Your task to perform on an android device: Is it going to rain this weekend? Image 0: 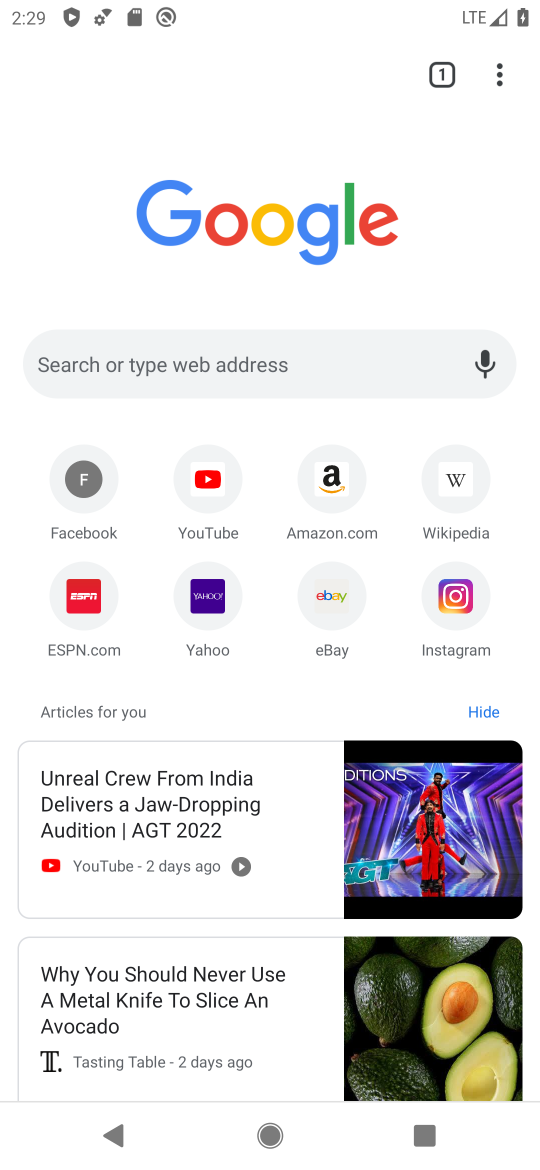
Step 0: press home button
Your task to perform on an android device: Is it going to rain this weekend? Image 1: 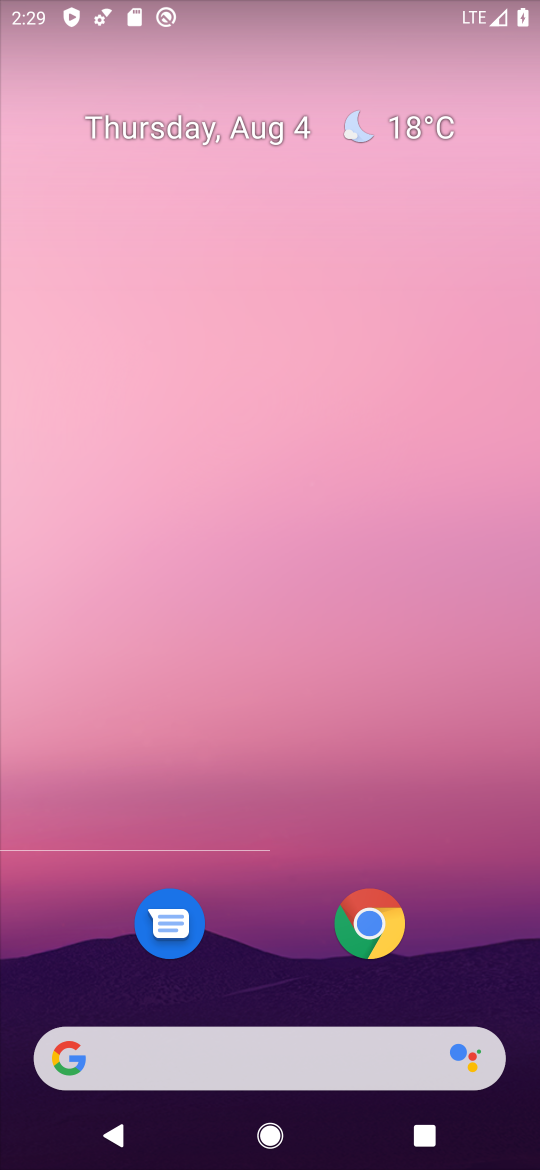
Step 1: drag from (353, 828) to (312, 50)
Your task to perform on an android device: Is it going to rain this weekend? Image 2: 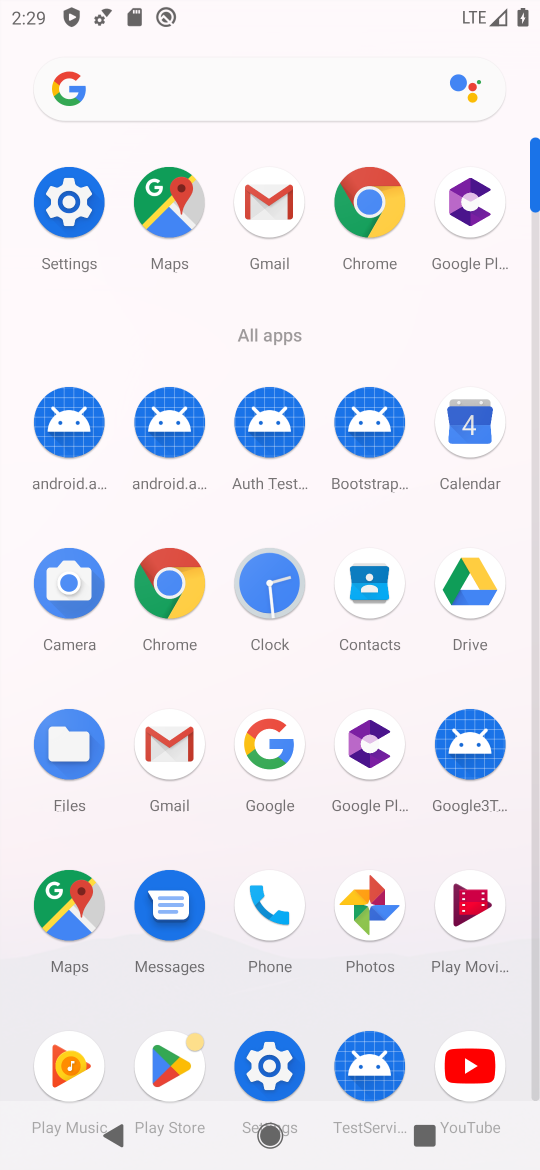
Step 2: click (291, 744)
Your task to perform on an android device: Is it going to rain this weekend? Image 3: 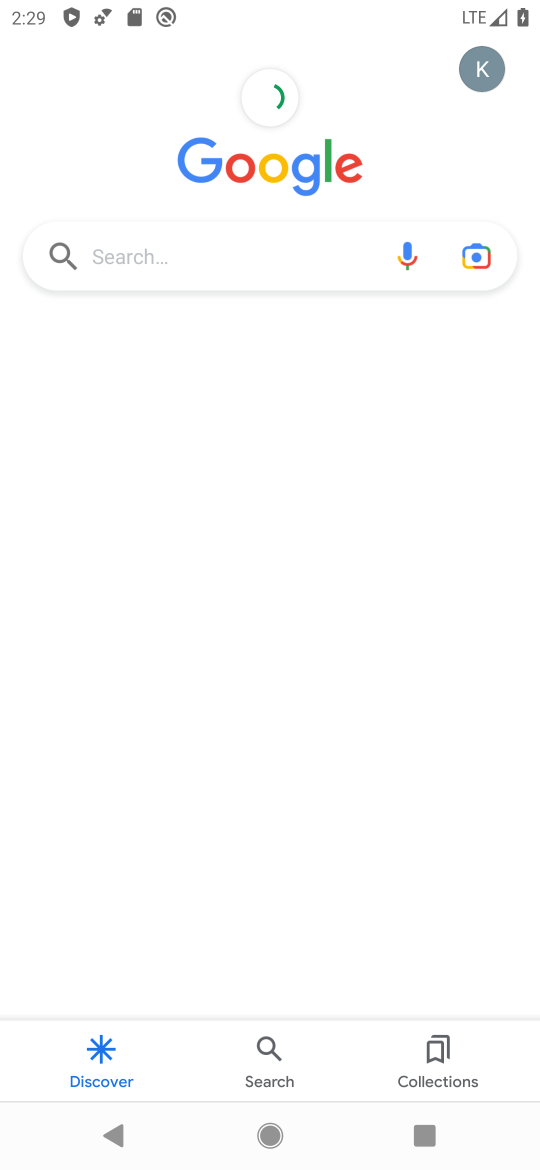
Step 3: click (166, 259)
Your task to perform on an android device: Is it going to rain this weekend? Image 4: 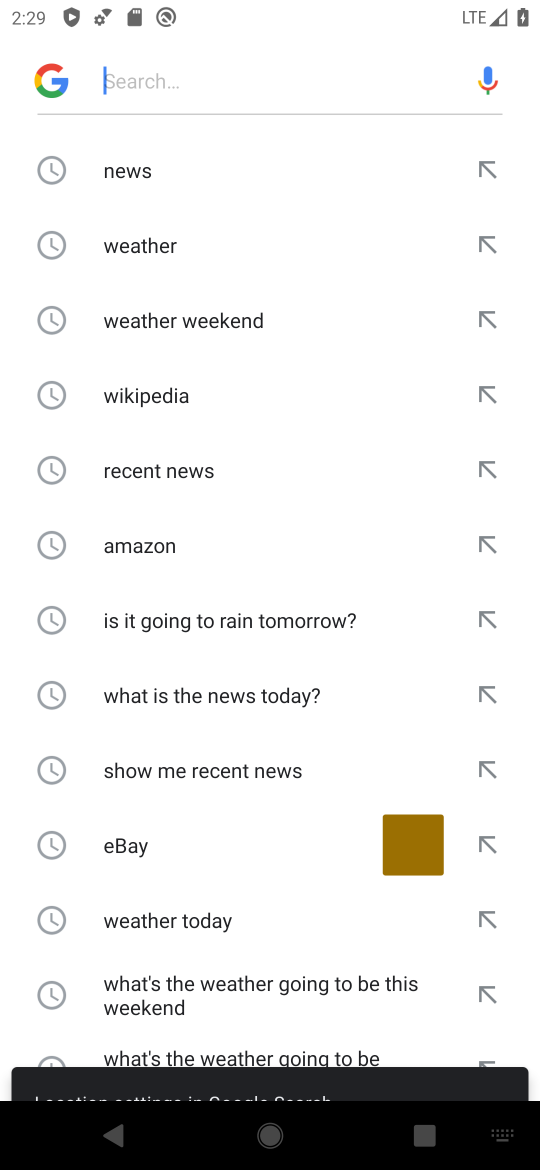
Step 4: click (151, 246)
Your task to perform on an android device: Is it going to rain this weekend? Image 5: 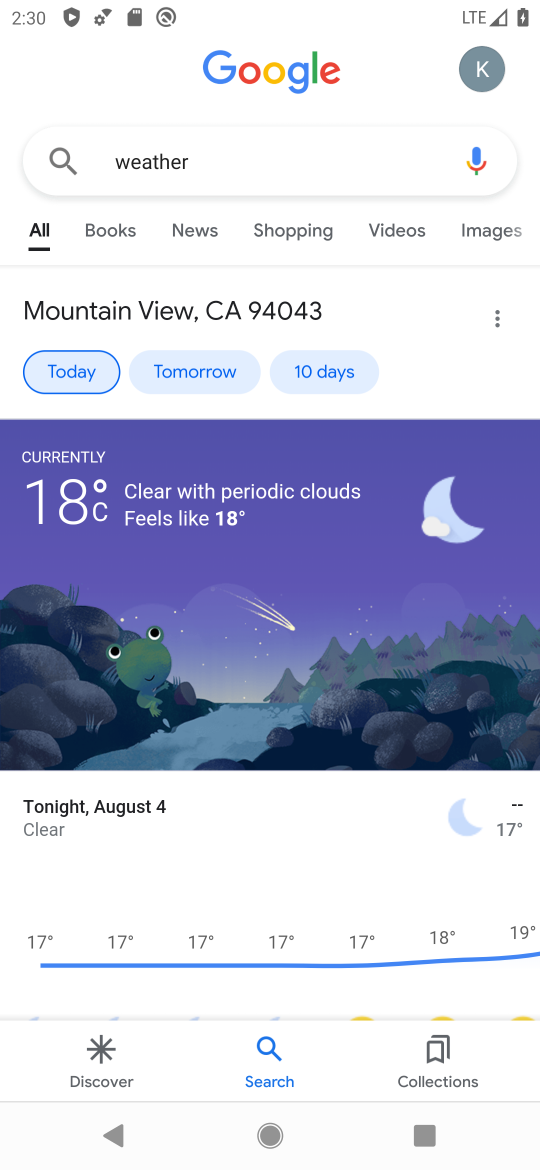
Step 5: task complete